Your task to perform on an android device: set the stopwatch Image 0: 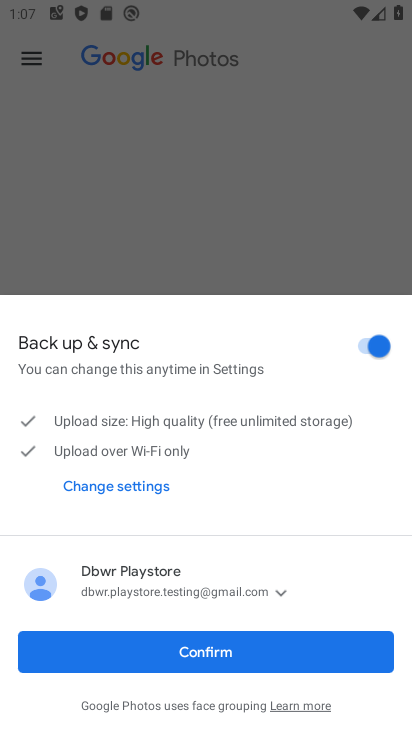
Step 0: press home button
Your task to perform on an android device: set the stopwatch Image 1: 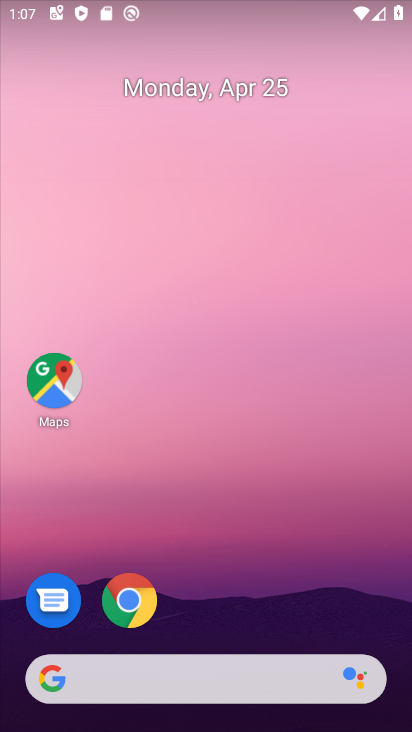
Step 1: drag from (199, 638) to (311, 137)
Your task to perform on an android device: set the stopwatch Image 2: 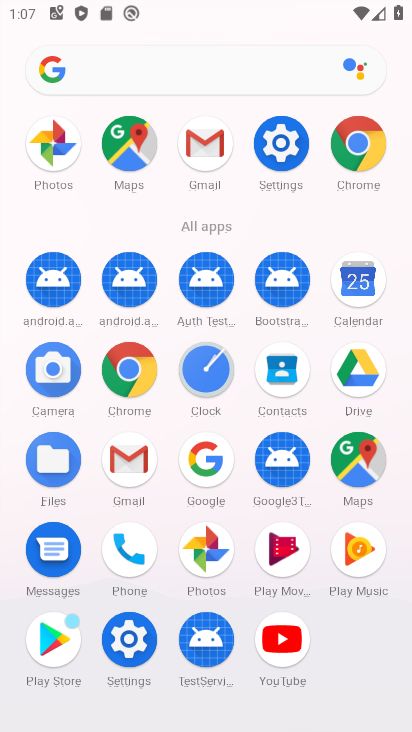
Step 2: click (201, 386)
Your task to perform on an android device: set the stopwatch Image 3: 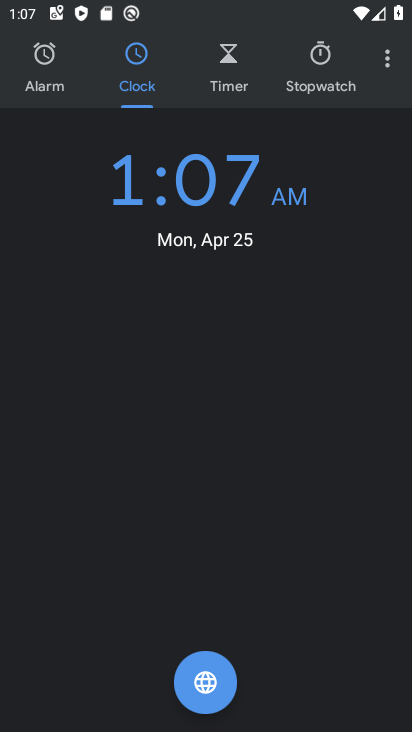
Step 3: click (325, 82)
Your task to perform on an android device: set the stopwatch Image 4: 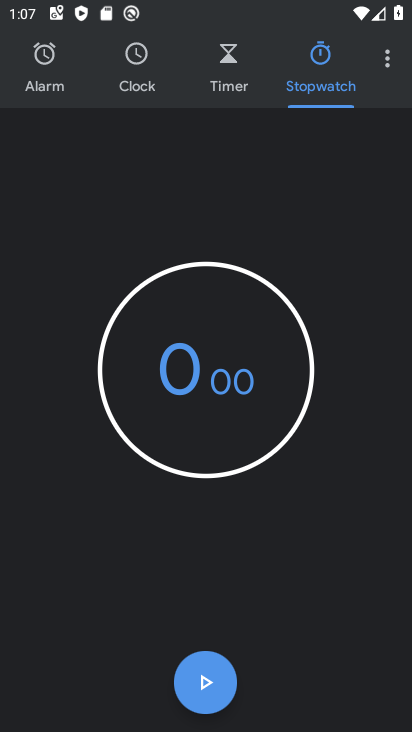
Step 4: click (216, 362)
Your task to perform on an android device: set the stopwatch Image 5: 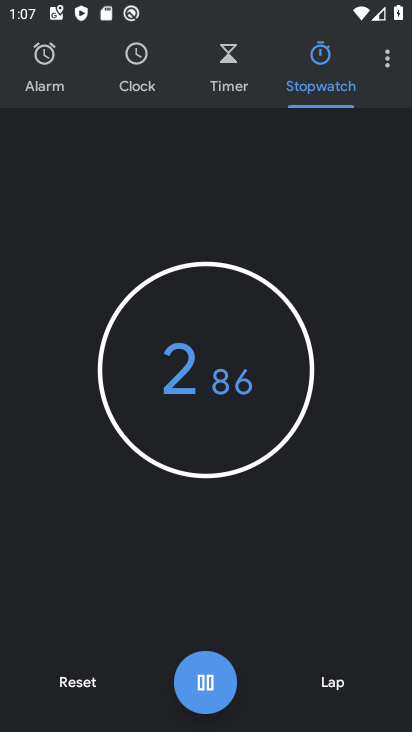
Step 5: click (206, 691)
Your task to perform on an android device: set the stopwatch Image 6: 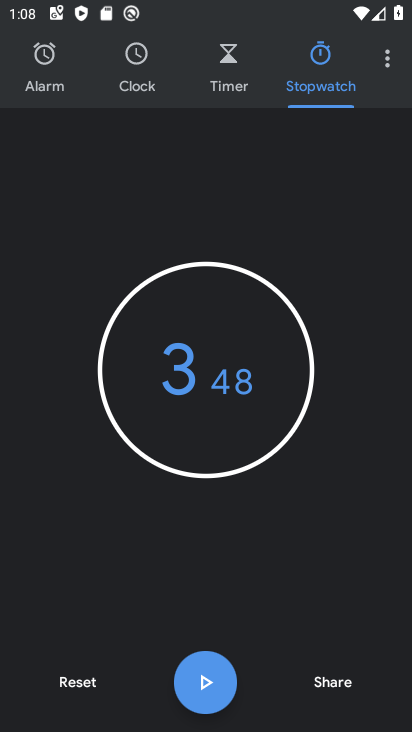
Step 6: task complete